Your task to perform on an android device: Open Youtube and go to "Your channel" Image 0: 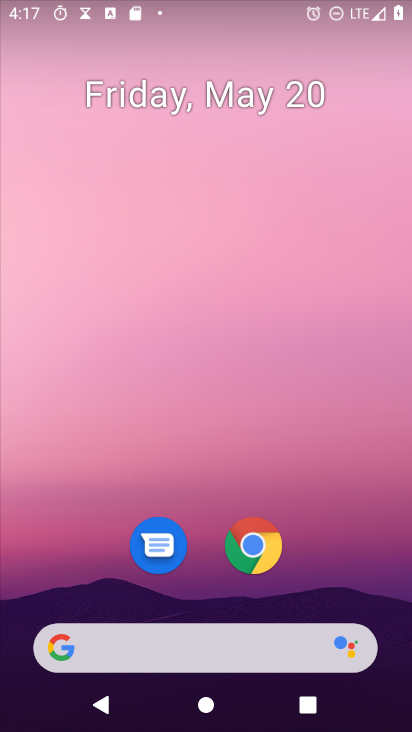
Step 0: drag from (243, 615) to (250, 0)
Your task to perform on an android device: Open Youtube and go to "Your channel" Image 1: 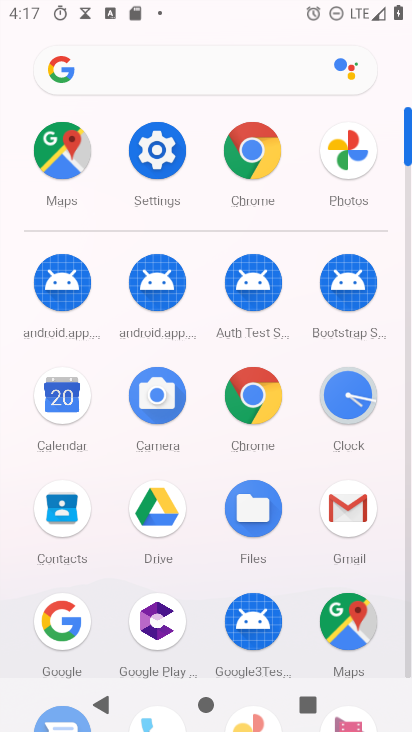
Step 1: drag from (284, 660) to (355, 183)
Your task to perform on an android device: Open Youtube and go to "Your channel" Image 2: 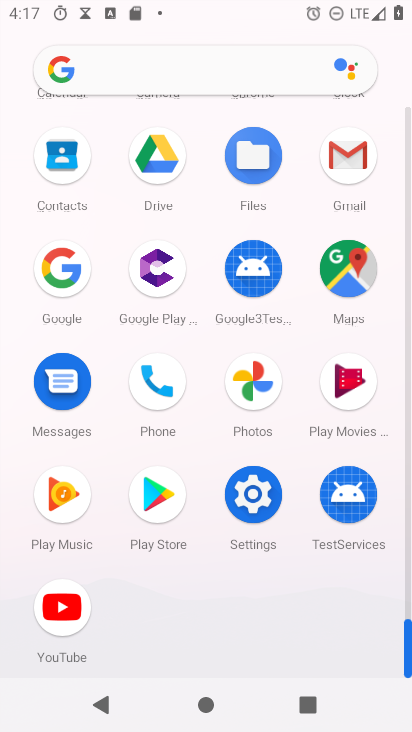
Step 2: click (65, 615)
Your task to perform on an android device: Open Youtube and go to "Your channel" Image 3: 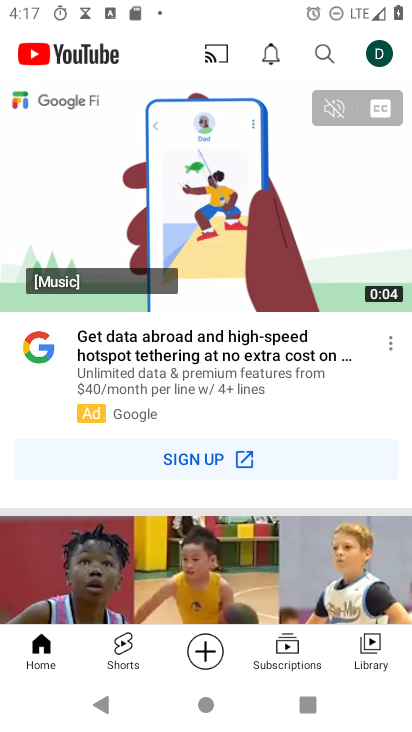
Step 3: click (384, 53)
Your task to perform on an android device: Open Youtube and go to "Your channel" Image 4: 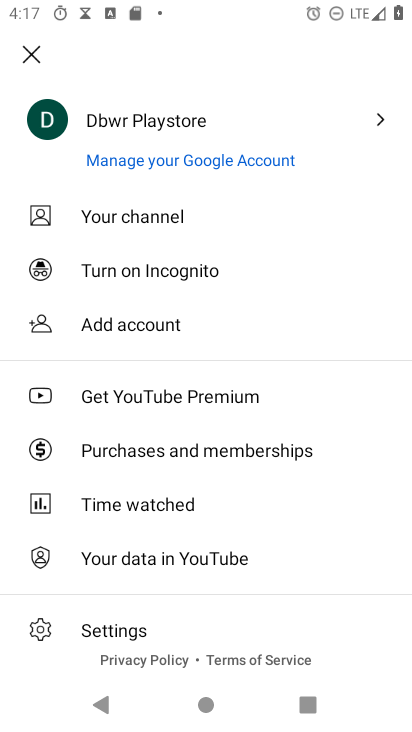
Step 4: click (201, 218)
Your task to perform on an android device: Open Youtube and go to "Your channel" Image 5: 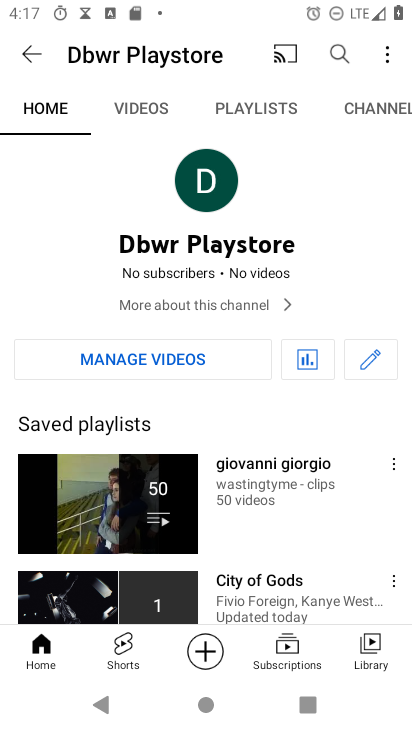
Step 5: task complete